Your task to perform on an android device: Add asus rog to the cart on bestbuy.com Image 0: 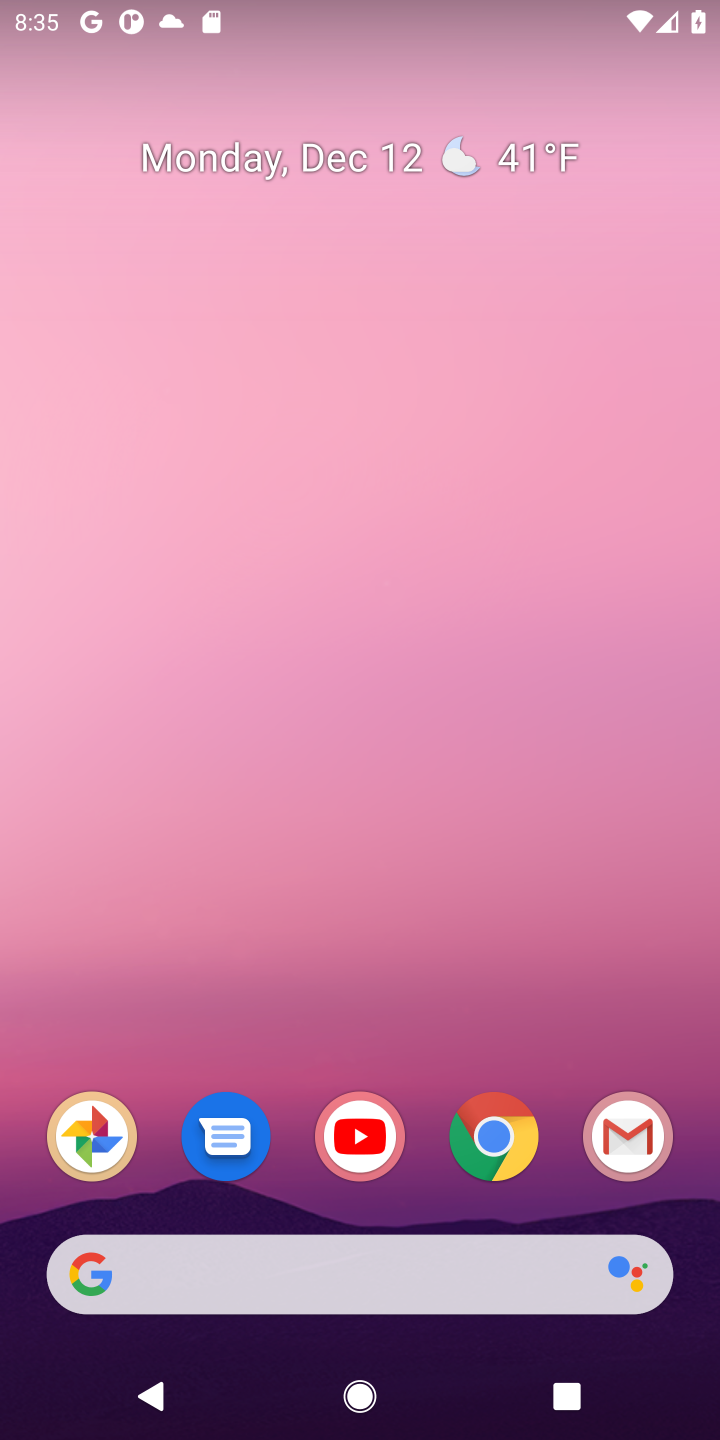
Step 0: click (499, 1135)
Your task to perform on an android device: Add asus rog to the cart on bestbuy.com Image 1: 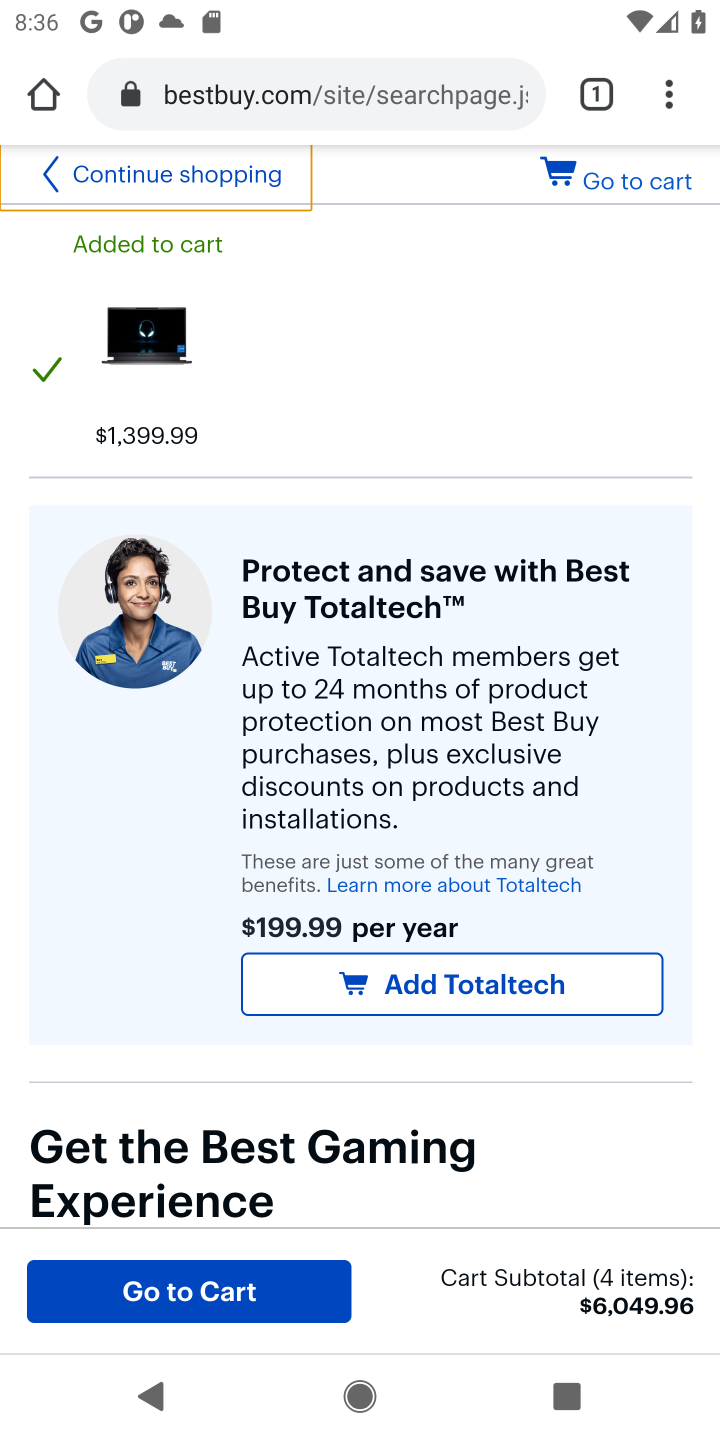
Step 1: press back button
Your task to perform on an android device: Add asus rog to the cart on bestbuy.com Image 2: 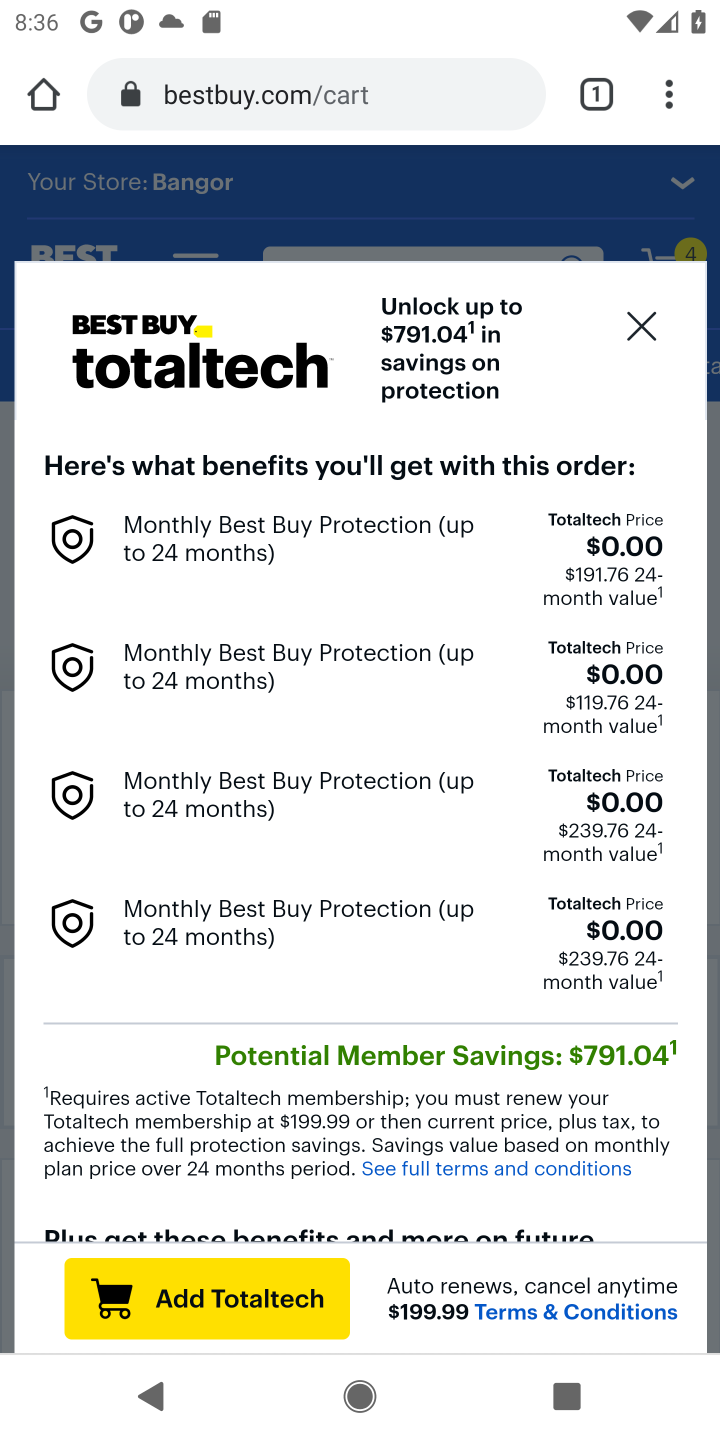
Step 2: click (647, 318)
Your task to perform on an android device: Add asus rog to the cart on bestbuy.com Image 3: 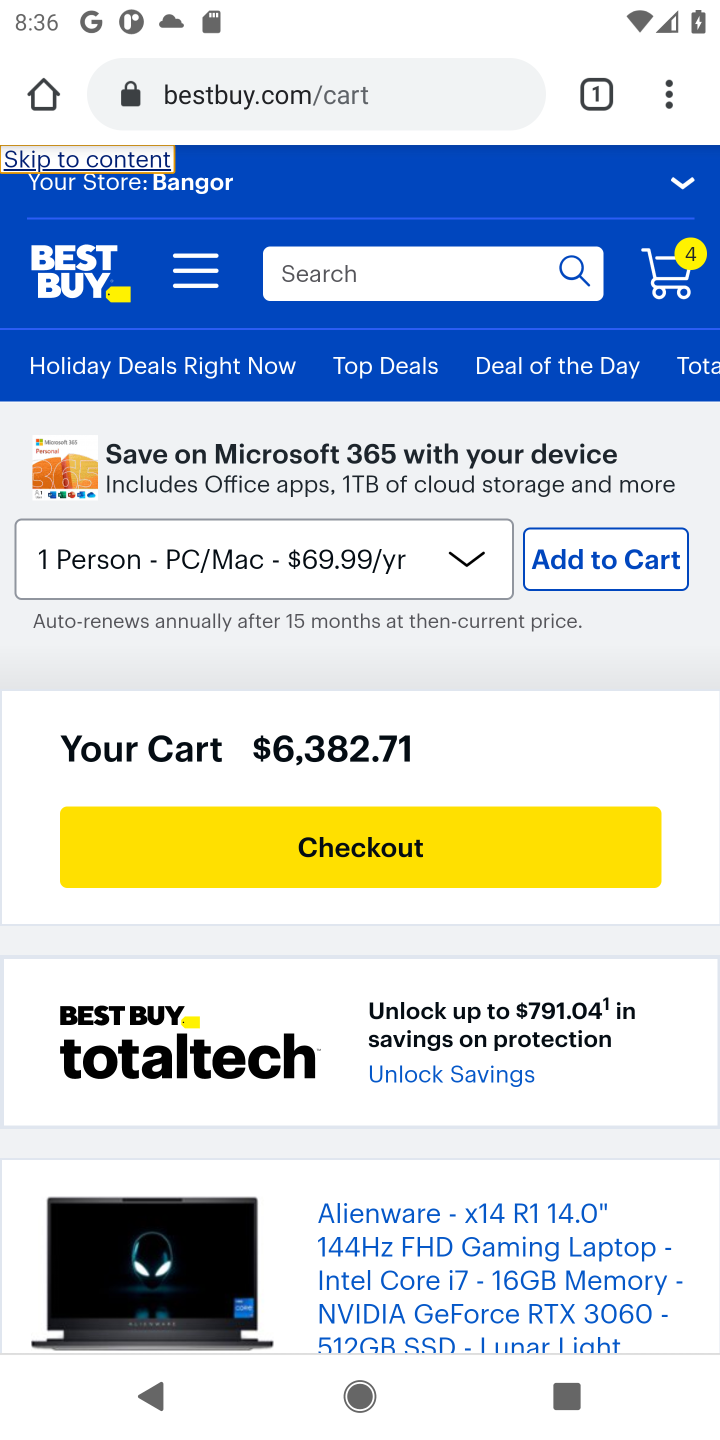
Step 3: click (306, 277)
Your task to perform on an android device: Add asus rog to the cart on bestbuy.com Image 4: 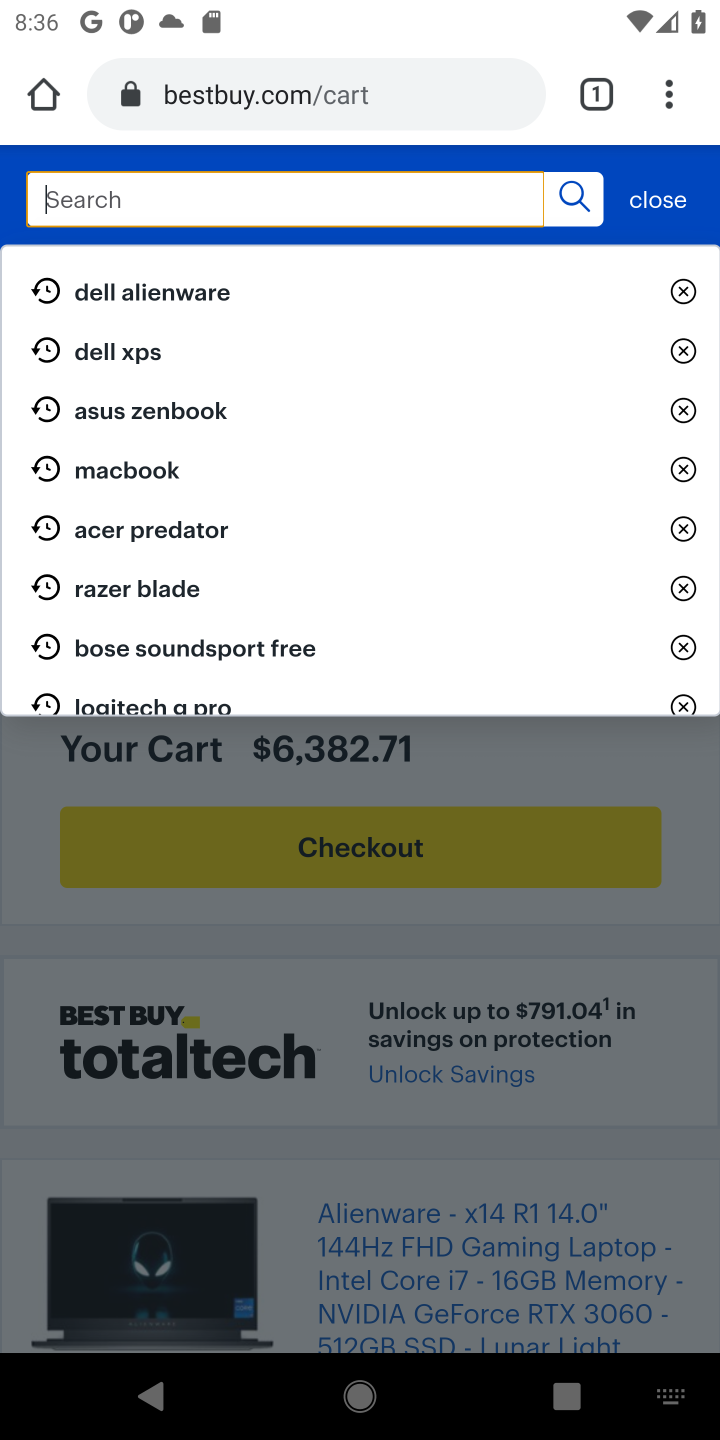
Step 4: type "asus rog"
Your task to perform on an android device: Add asus rog to the cart on bestbuy.com Image 5: 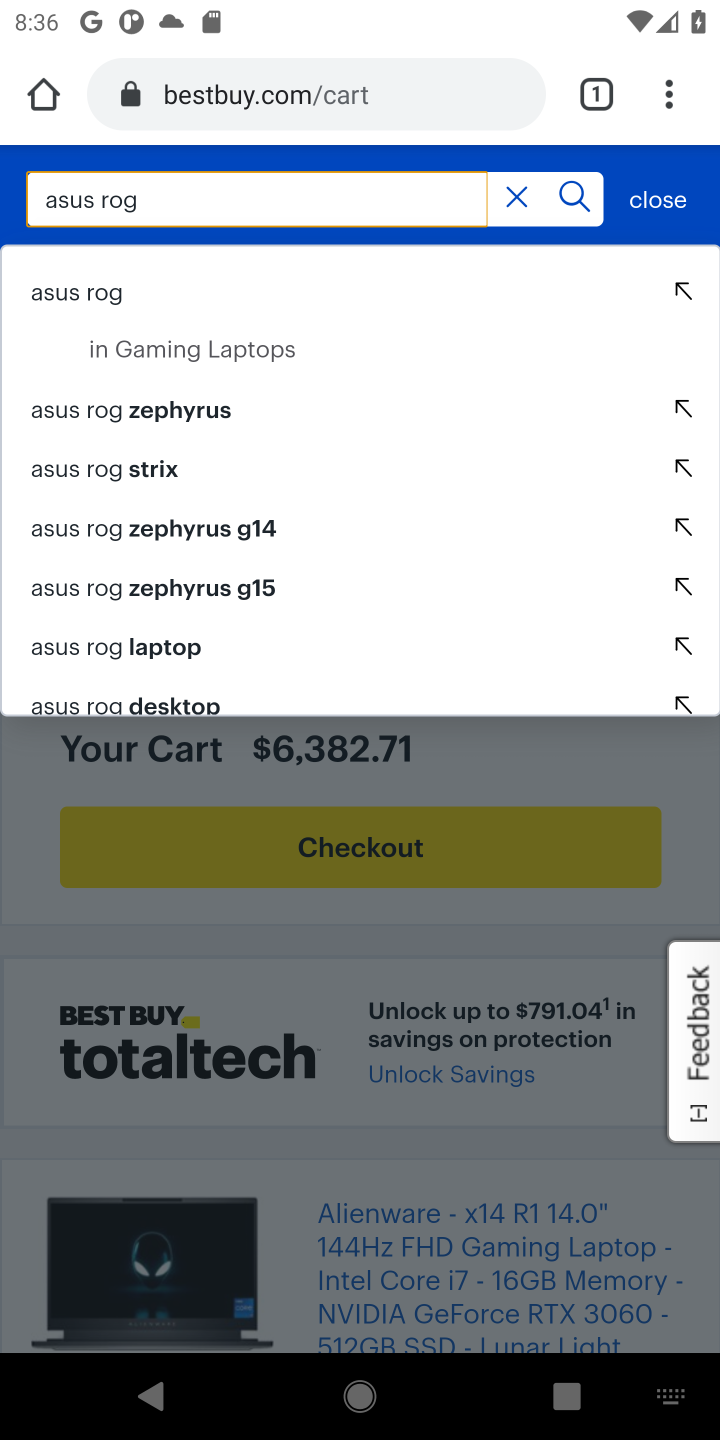
Step 5: click (85, 294)
Your task to perform on an android device: Add asus rog to the cart on bestbuy.com Image 6: 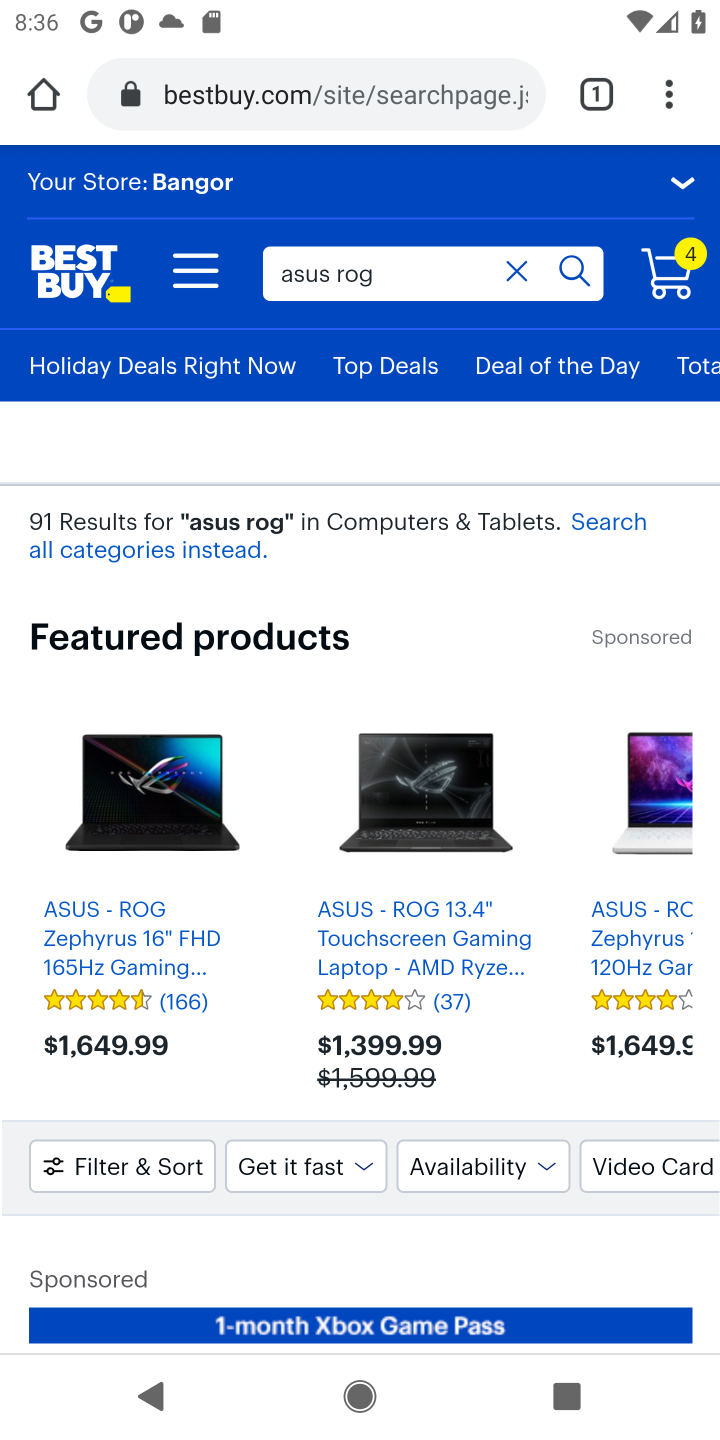
Step 6: drag from (327, 1202) to (287, 593)
Your task to perform on an android device: Add asus rog to the cart on bestbuy.com Image 7: 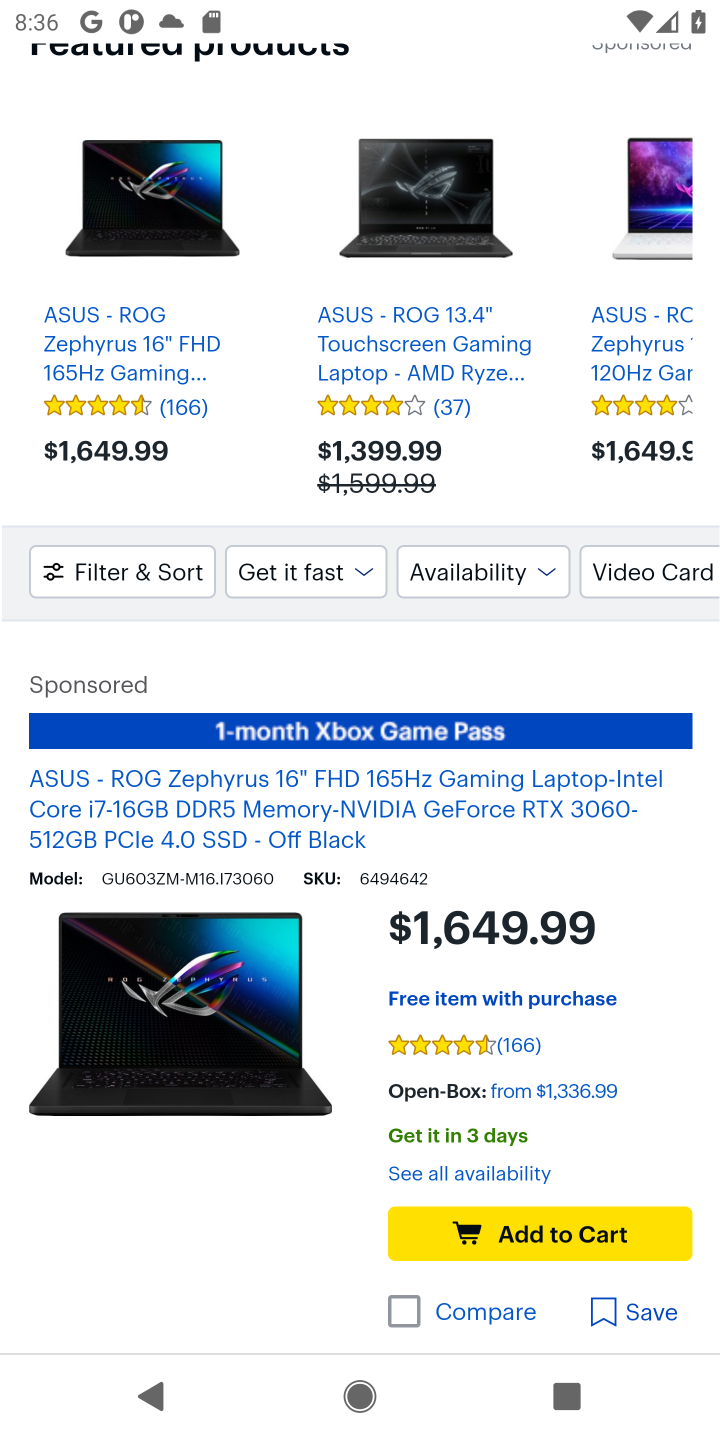
Step 7: click (523, 1172)
Your task to perform on an android device: Add asus rog to the cart on bestbuy.com Image 8: 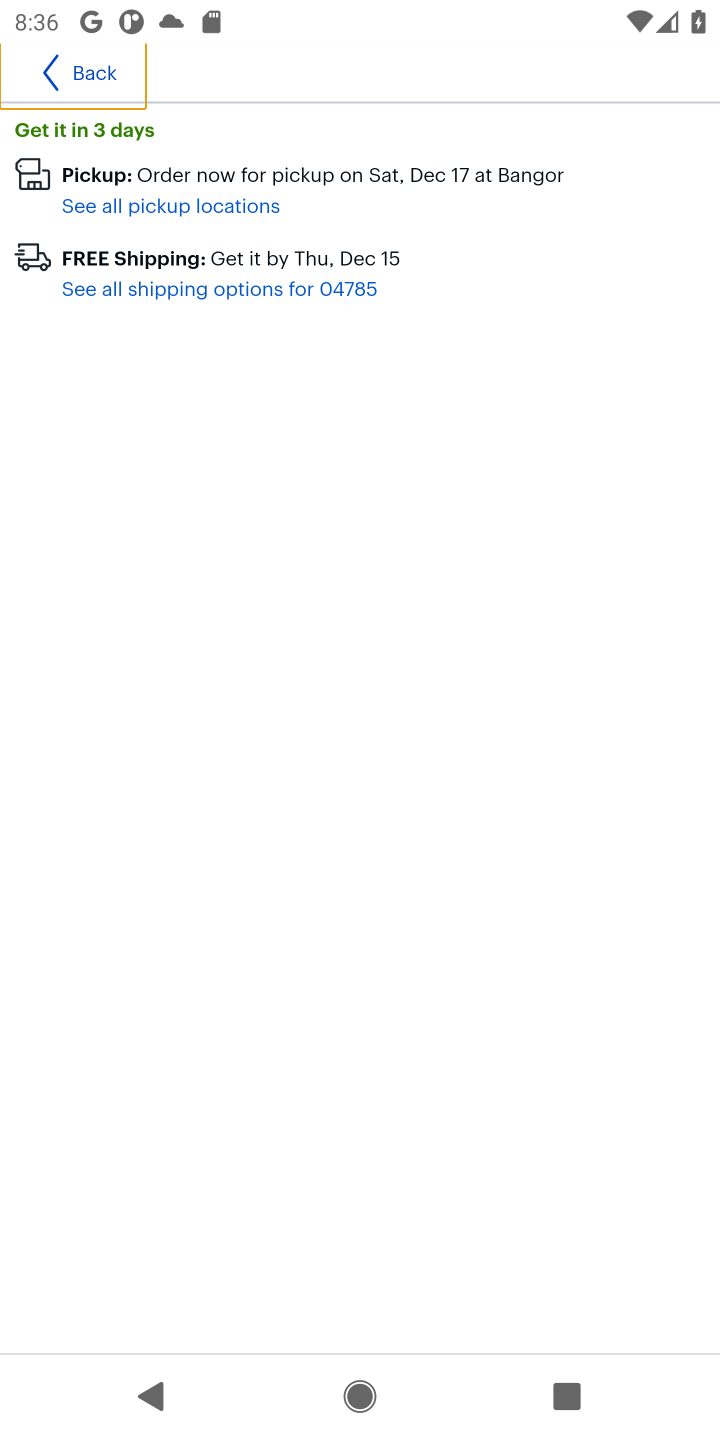
Step 8: click (68, 85)
Your task to perform on an android device: Add asus rog to the cart on bestbuy.com Image 9: 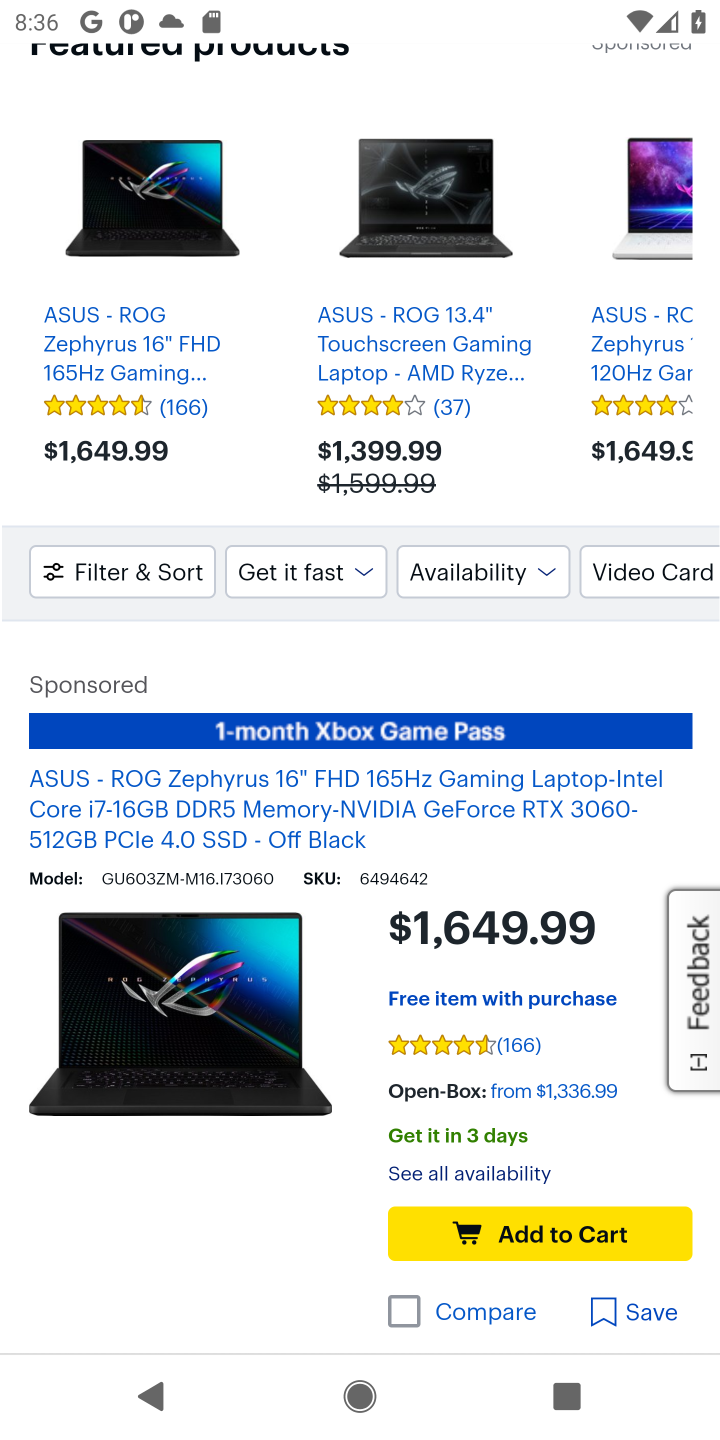
Step 9: click (525, 1224)
Your task to perform on an android device: Add asus rog to the cart on bestbuy.com Image 10: 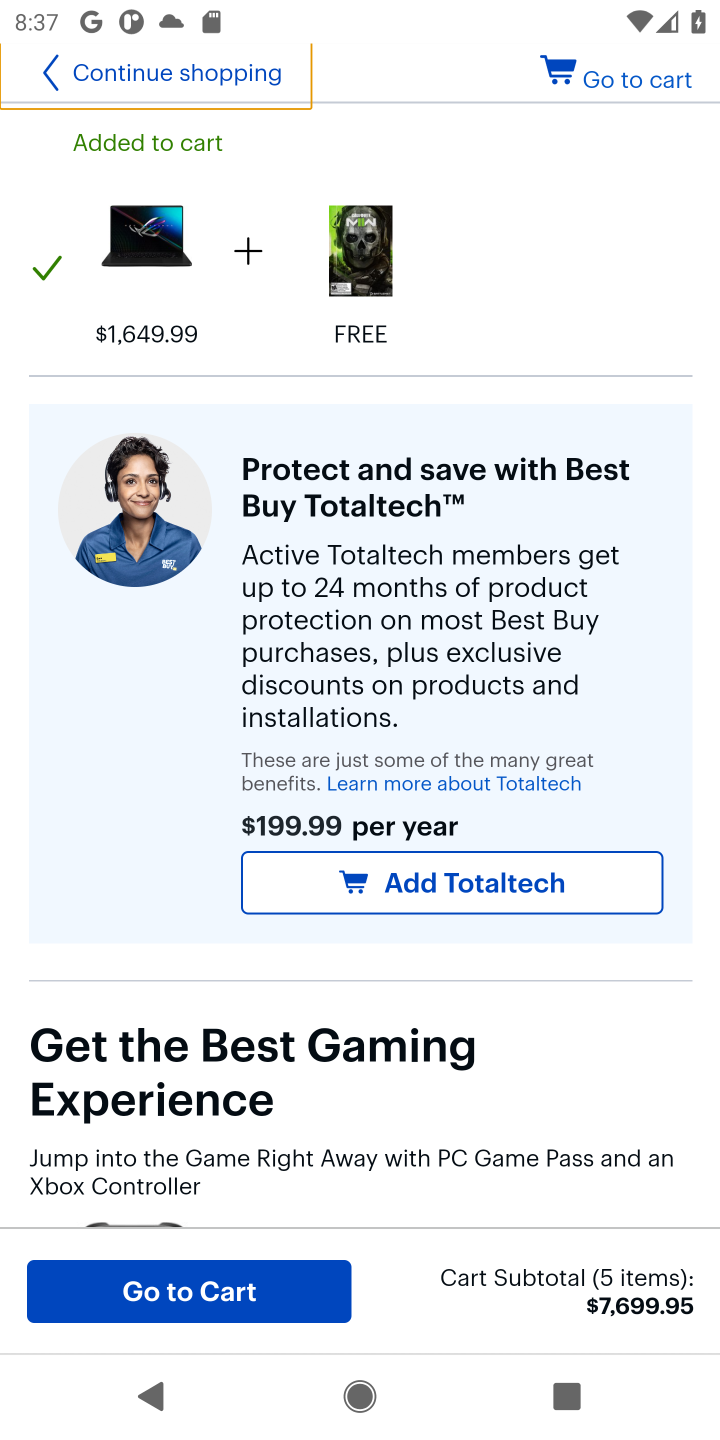
Step 10: task complete